Your task to perform on an android device: Go to Android settings Image 0: 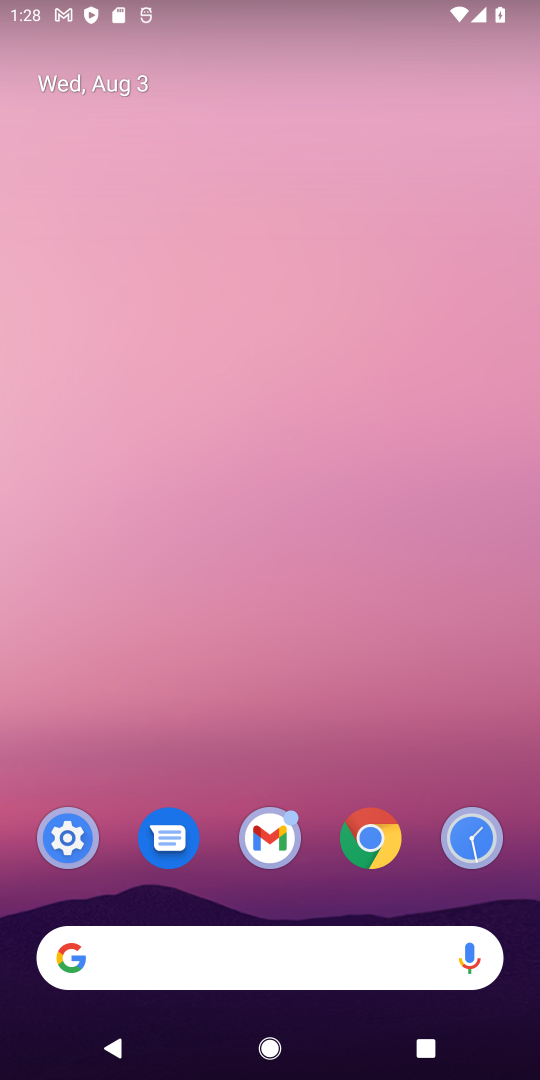
Step 0: drag from (182, 906) to (386, 4)
Your task to perform on an android device: Go to Android settings Image 1: 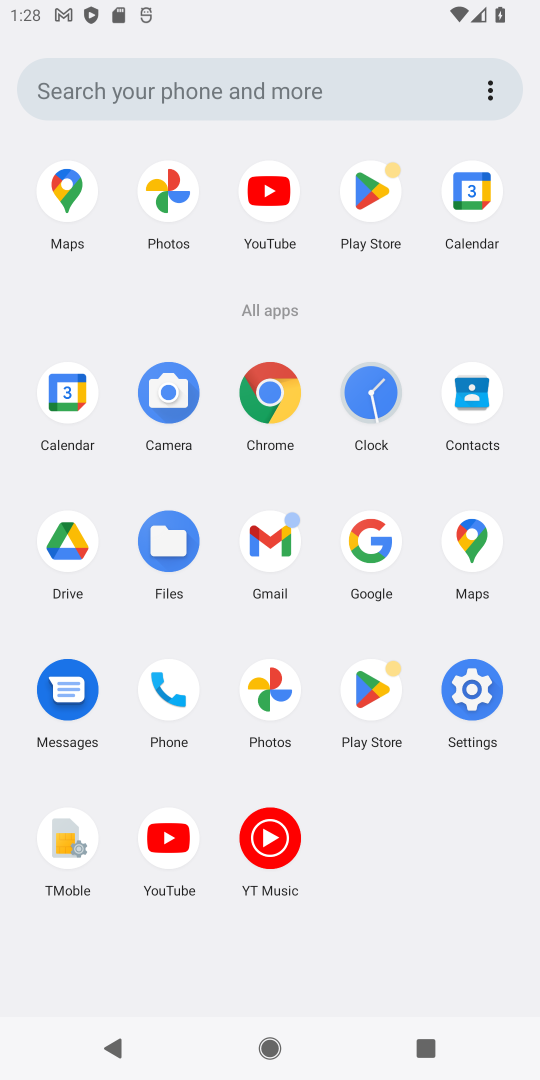
Step 1: click (466, 681)
Your task to perform on an android device: Go to Android settings Image 2: 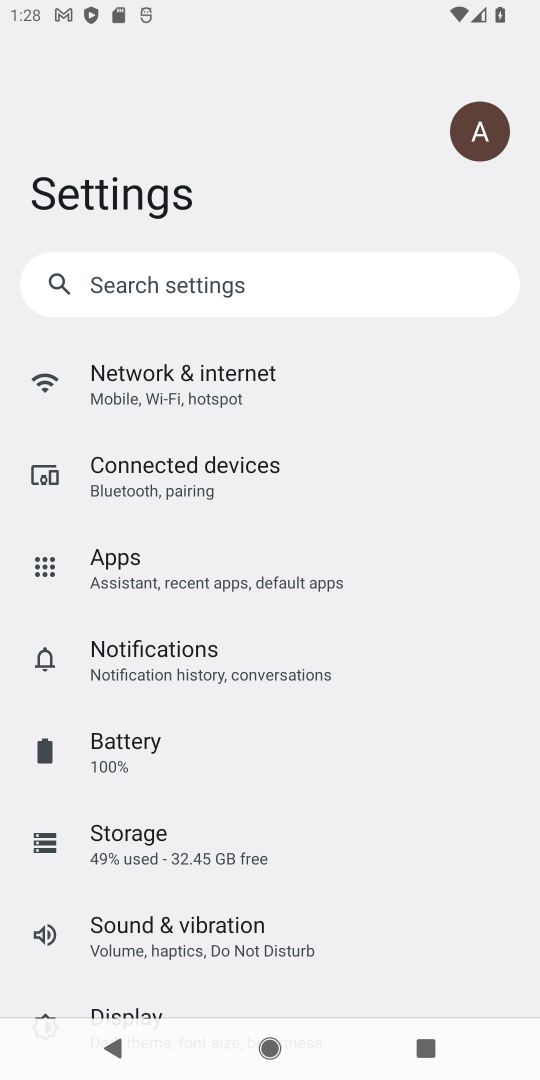
Step 2: drag from (201, 919) to (454, 0)
Your task to perform on an android device: Go to Android settings Image 3: 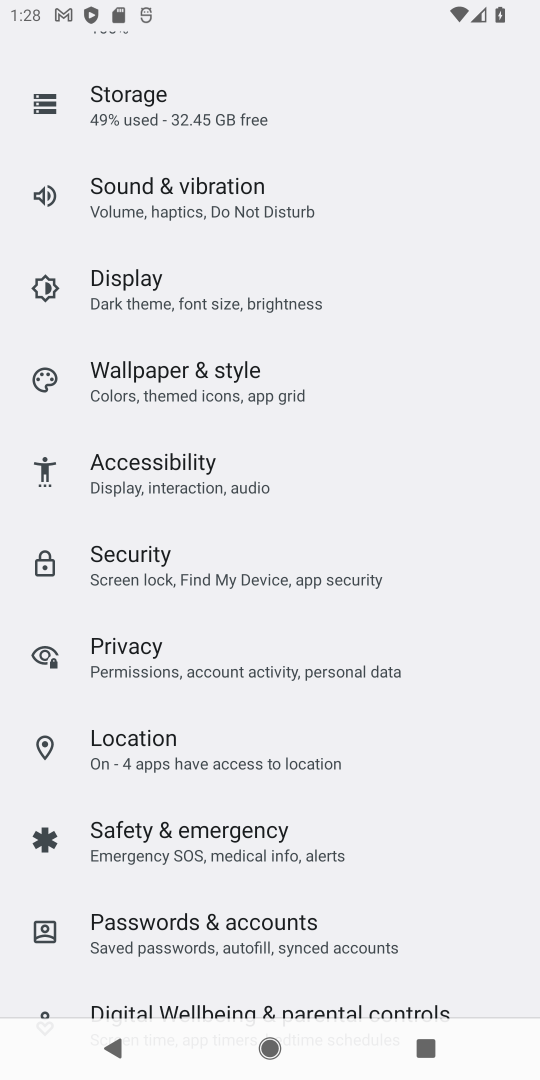
Step 3: drag from (265, 817) to (386, 10)
Your task to perform on an android device: Go to Android settings Image 4: 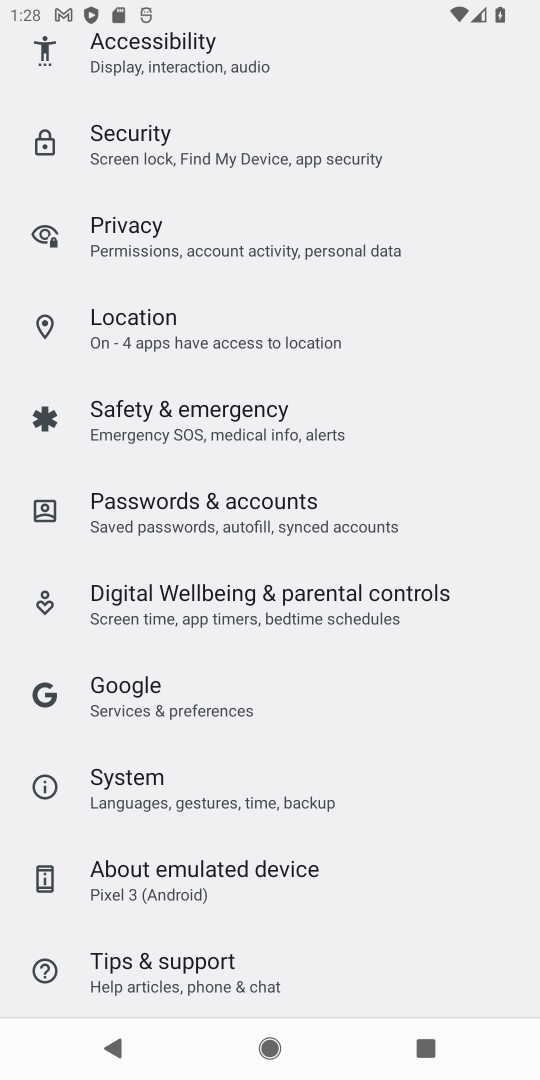
Step 4: click (220, 889)
Your task to perform on an android device: Go to Android settings Image 5: 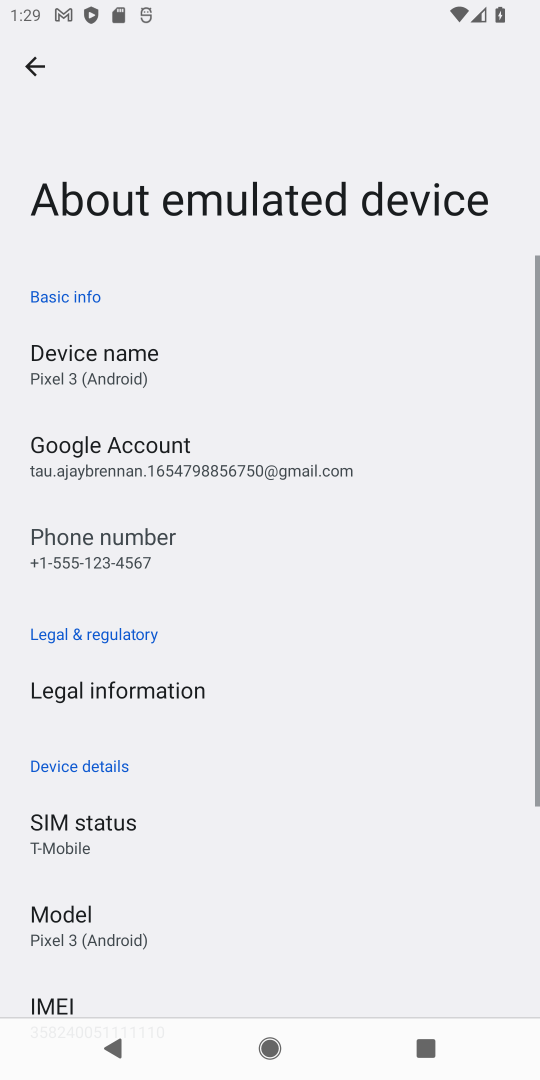
Step 5: drag from (196, 883) to (309, 130)
Your task to perform on an android device: Go to Android settings Image 6: 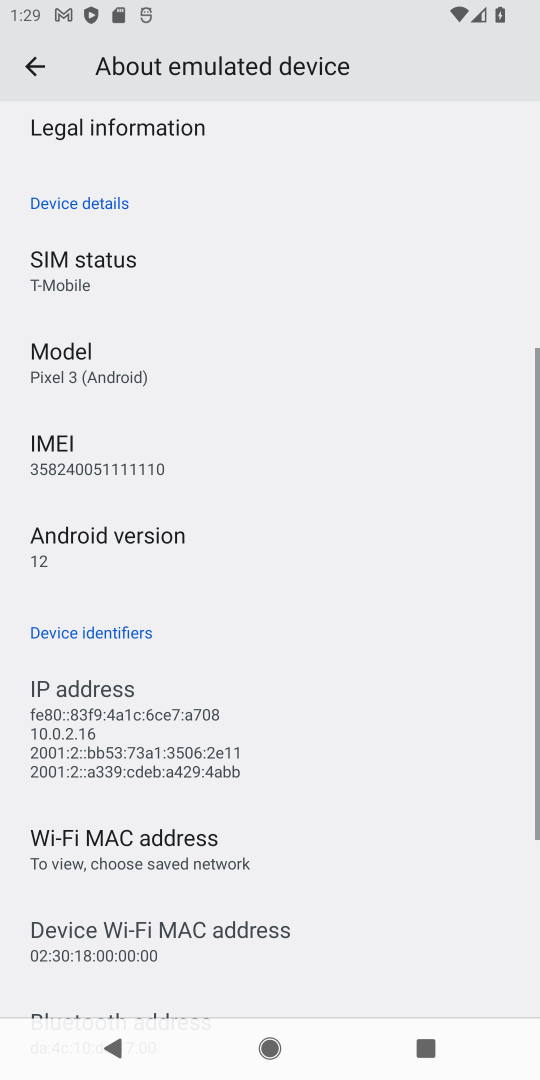
Step 6: click (90, 532)
Your task to perform on an android device: Go to Android settings Image 7: 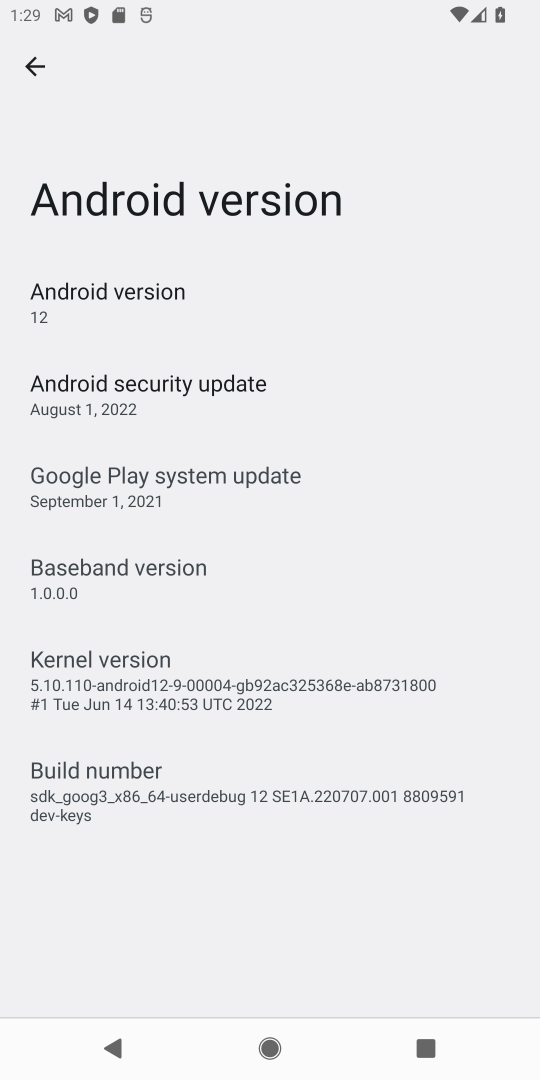
Step 7: task complete